Your task to perform on an android device: turn off notifications settings in the gmail app Image 0: 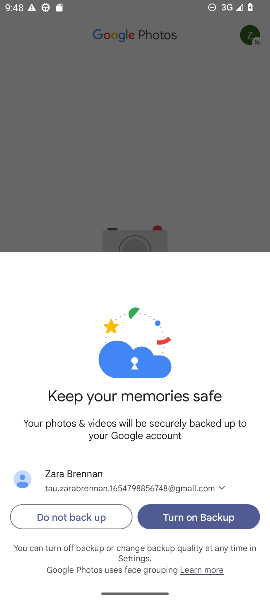
Step 0: press home button
Your task to perform on an android device: turn off notifications settings in the gmail app Image 1: 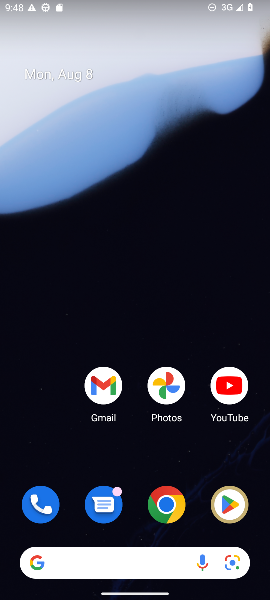
Step 1: click (105, 395)
Your task to perform on an android device: turn off notifications settings in the gmail app Image 2: 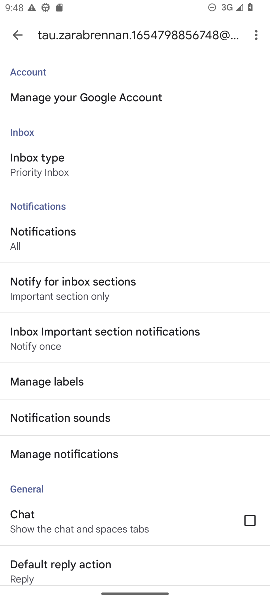
Step 2: click (12, 30)
Your task to perform on an android device: turn off notifications settings in the gmail app Image 3: 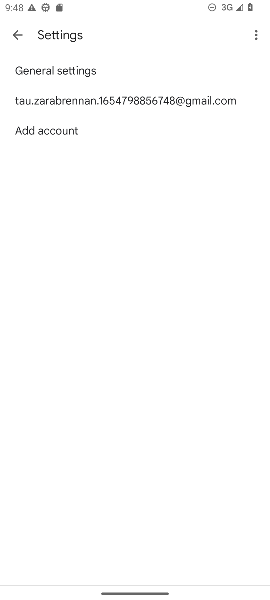
Step 3: click (80, 68)
Your task to perform on an android device: turn off notifications settings in the gmail app Image 4: 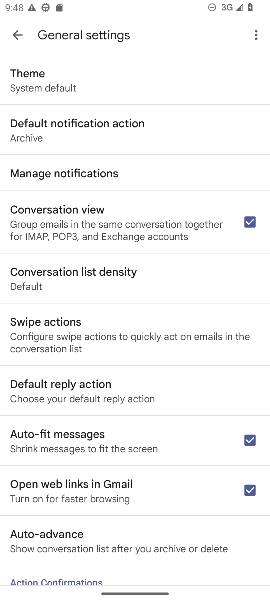
Step 4: click (79, 167)
Your task to perform on an android device: turn off notifications settings in the gmail app Image 5: 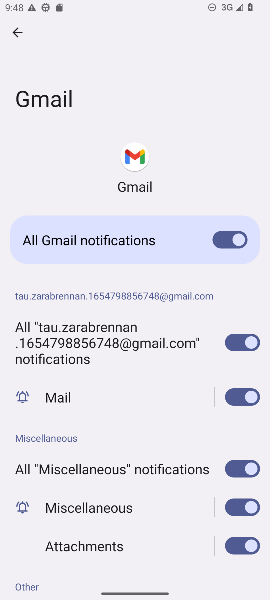
Step 5: click (206, 246)
Your task to perform on an android device: turn off notifications settings in the gmail app Image 6: 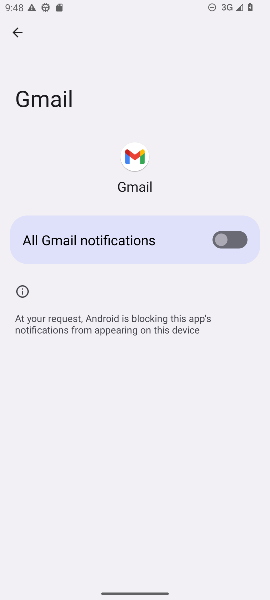
Step 6: task complete